Your task to perform on an android device: turn pop-ups off in chrome Image 0: 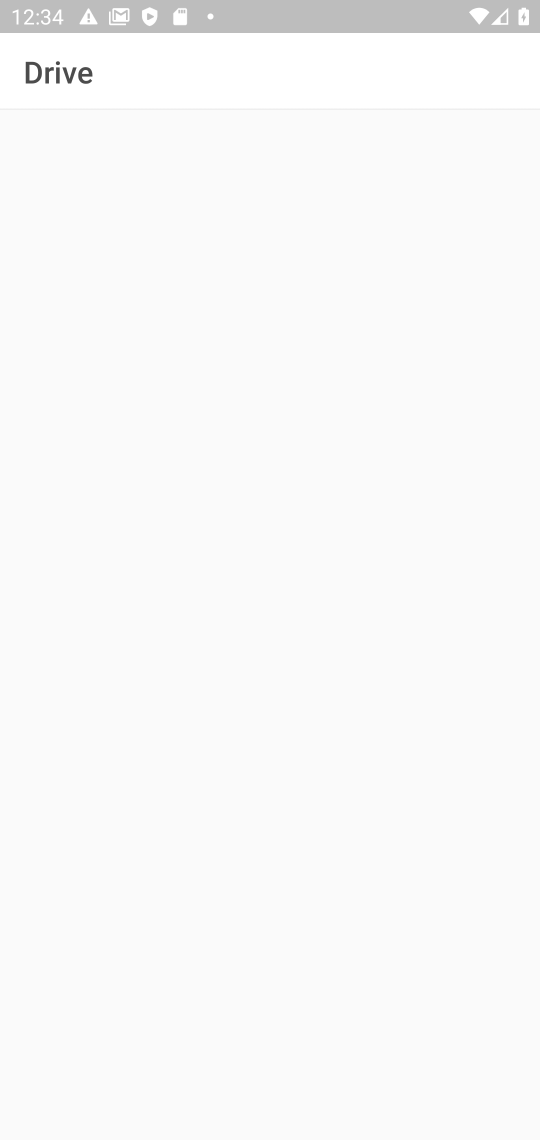
Step 0: press home button
Your task to perform on an android device: turn pop-ups off in chrome Image 1: 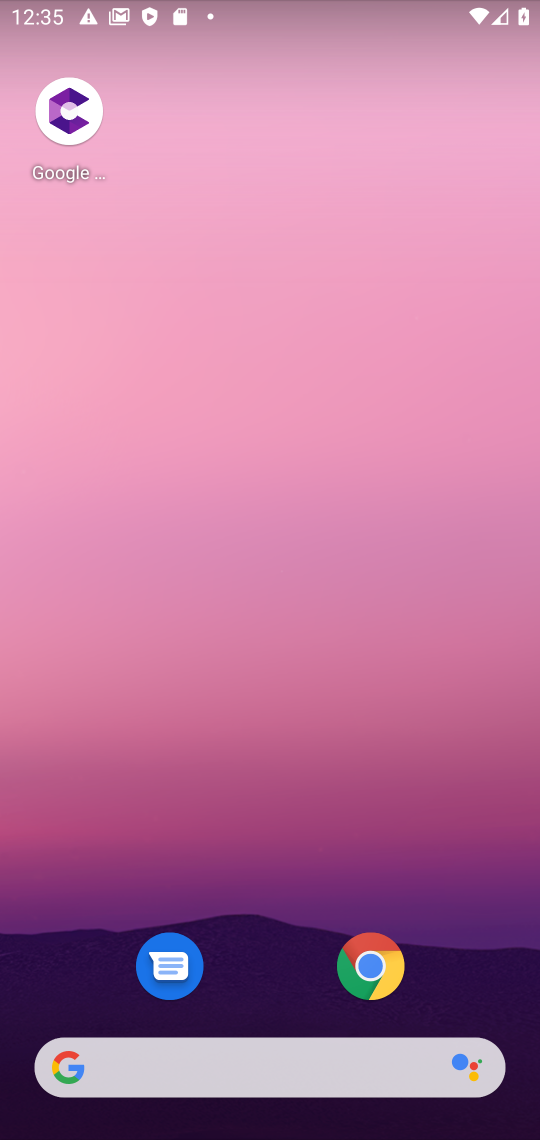
Step 1: click (358, 964)
Your task to perform on an android device: turn pop-ups off in chrome Image 2: 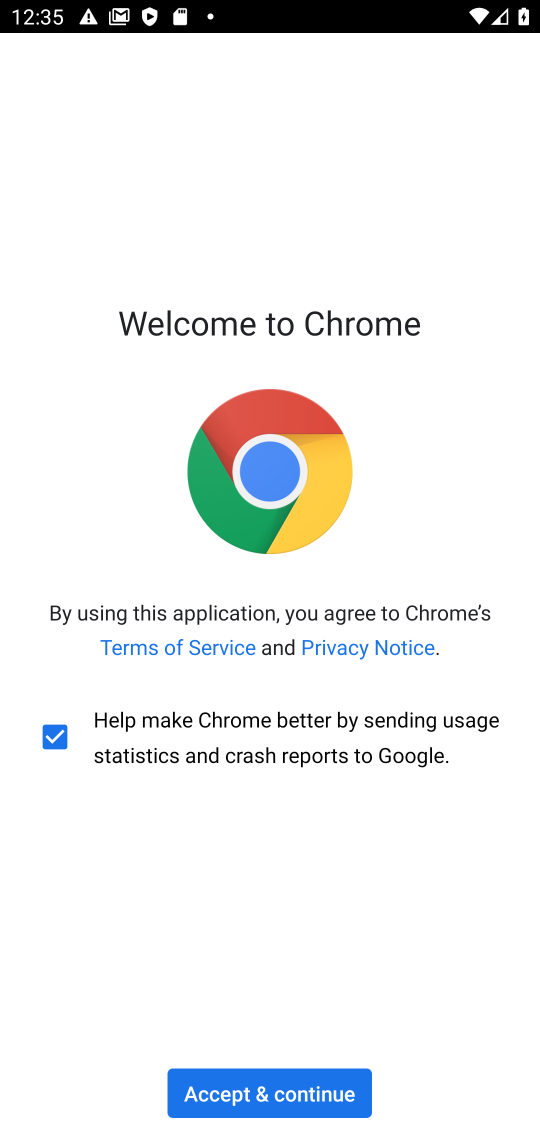
Step 2: click (306, 1093)
Your task to perform on an android device: turn pop-ups off in chrome Image 3: 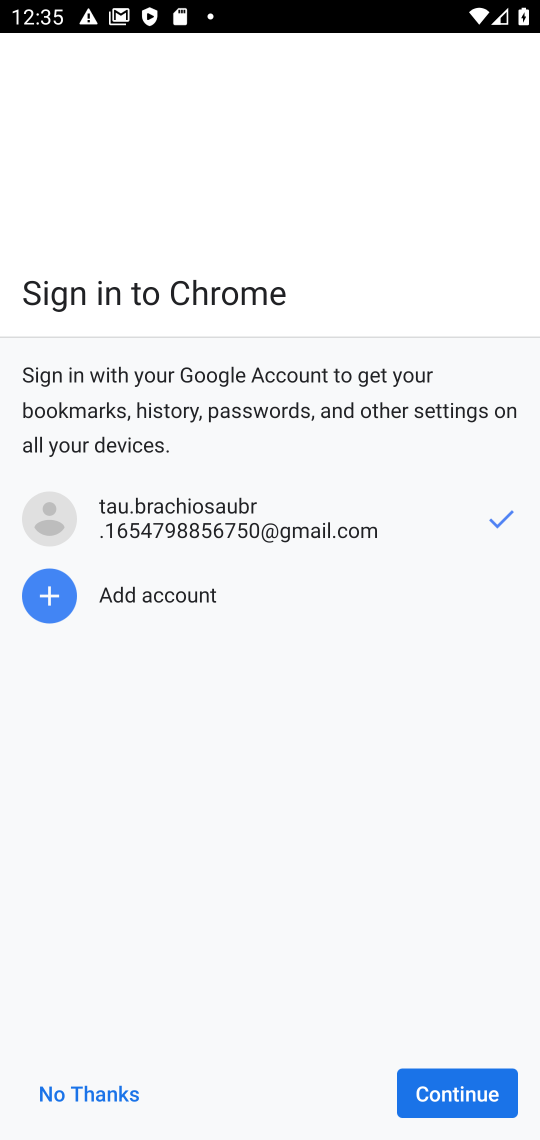
Step 3: click (438, 1100)
Your task to perform on an android device: turn pop-ups off in chrome Image 4: 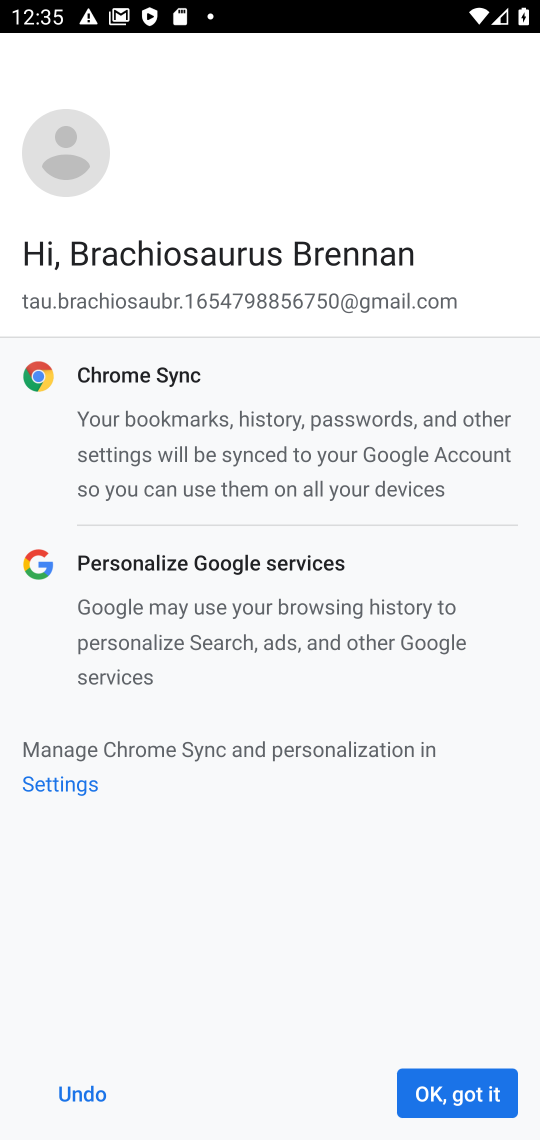
Step 4: click (438, 1100)
Your task to perform on an android device: turn pop-ups off in chrome Image 5: 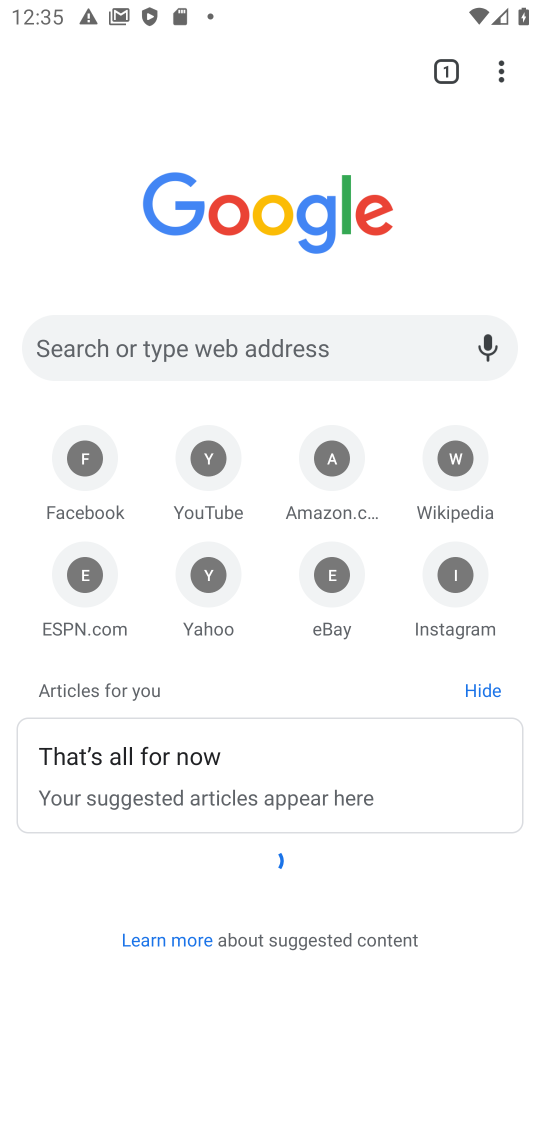
Step 5: click (498, 70)
Your task to perform on an android device: turn pop-ups off in chrome Image 6: 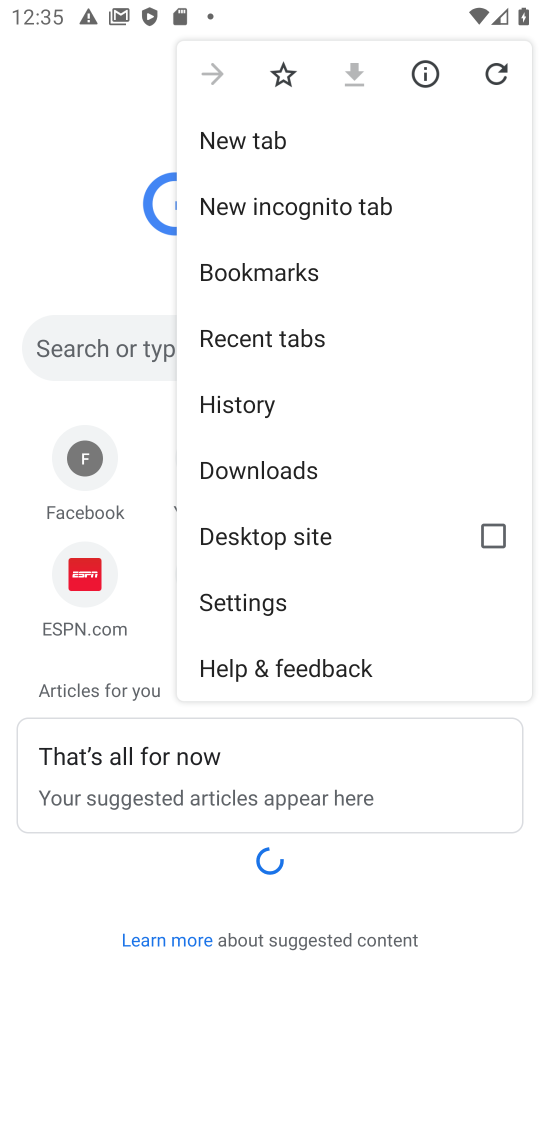
Step 6: click (284, 603)
Your task to perform on an android device: turn pop-ups off in chrome Image 7: 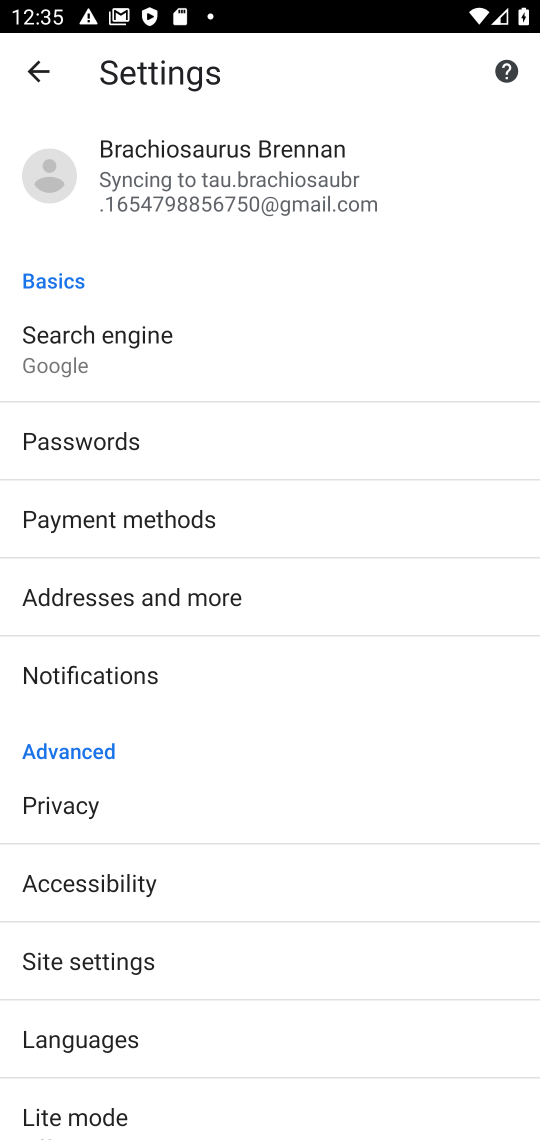
Step 7: click (138, 964)
Your task to perform on an android device: turn pop-ups off in chrome Image 8: 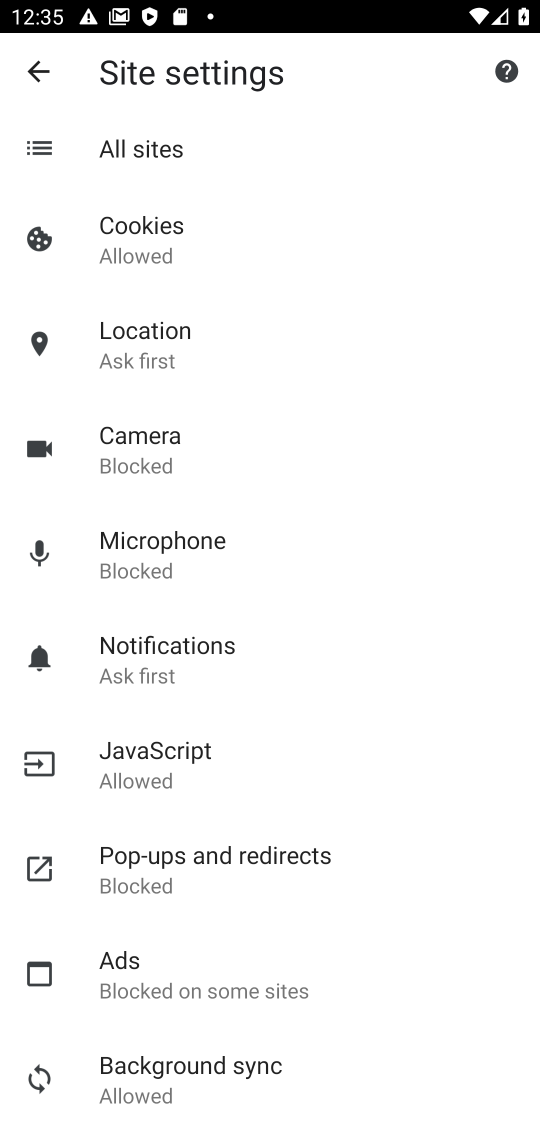
Step 8: click (190, 878)
Your task to perform on an android device: turn pop-ups off in chrome Image 9: 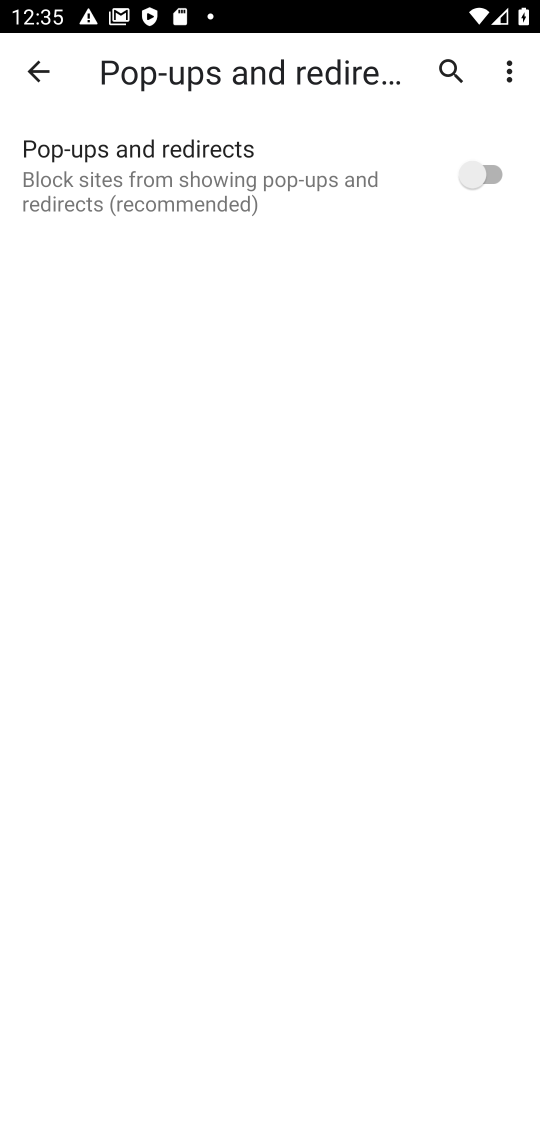
Step 9: task complete